Your task to perform on an android device: check battery use Image 0: 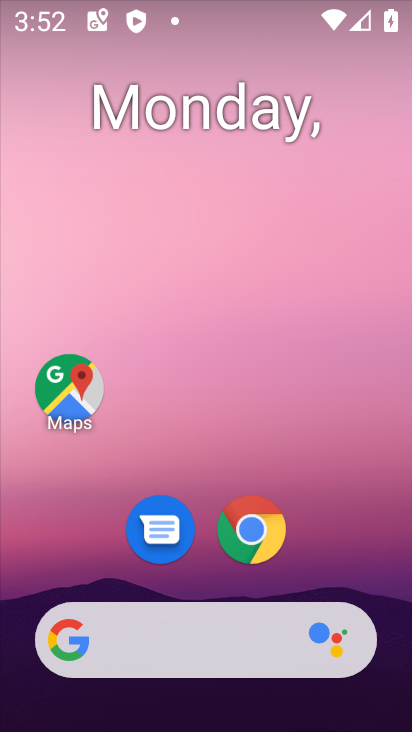
Step 0: drag from (208, 546) to (225, 0)
Your task to perform on an android device: check battery use Image 1: 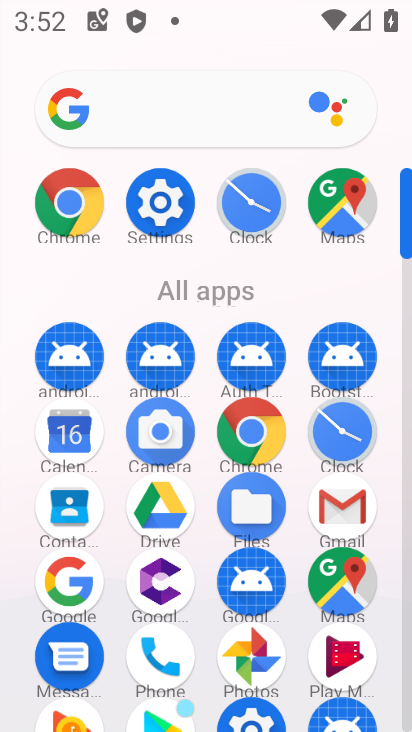
Step 1: click (166, 210)
Your task to perform on an android device: check battery use Image 2: 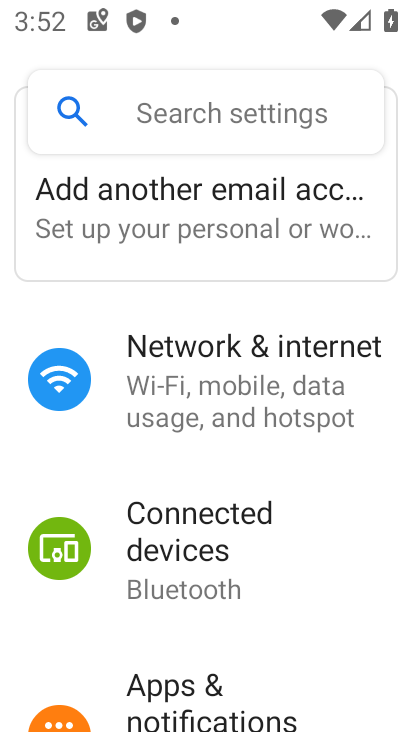
Step 2: drag from (187, 590) to (250, 346)
Your task to perform on an android device: check battery use Image 3: 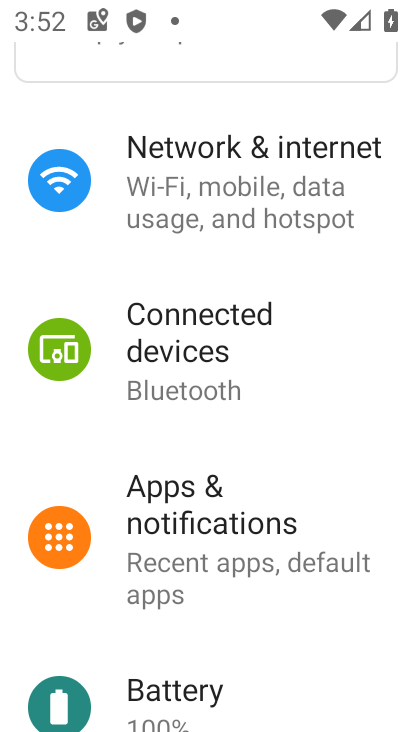
Step 3: drag from (193, 592) to (240, 379)
Your task to perform on an android device: check battery use Image 4: 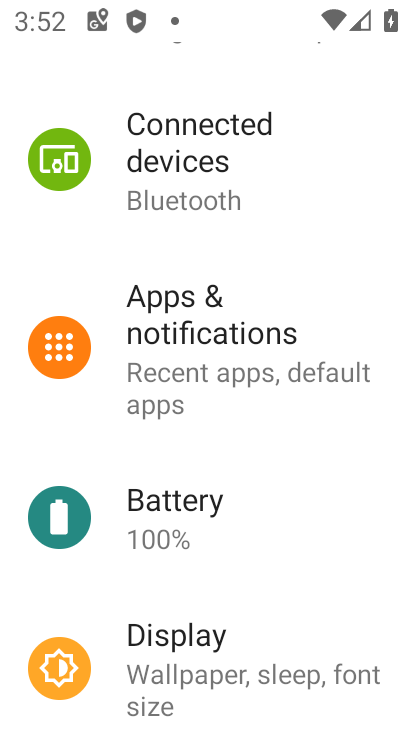
Step 4: click (195, 527)
Your task to perform on an android device: check battery use Image 5: 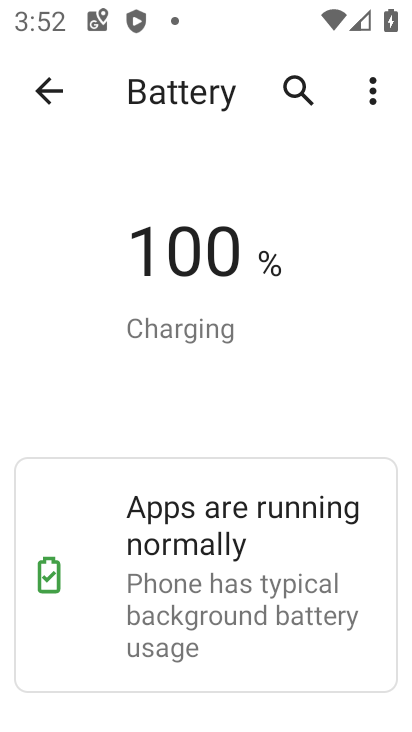
Step 5: drag from (181, 596) to (248, 322)
Your task to perform on an android device: check battery use Image 6: 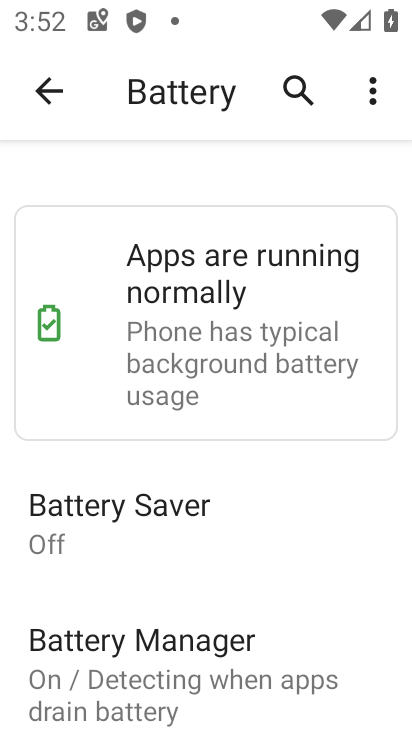
Step 6: drag from (209, 534) to (287, 236)
Your task to perform on an android device: check battery use Image 7: 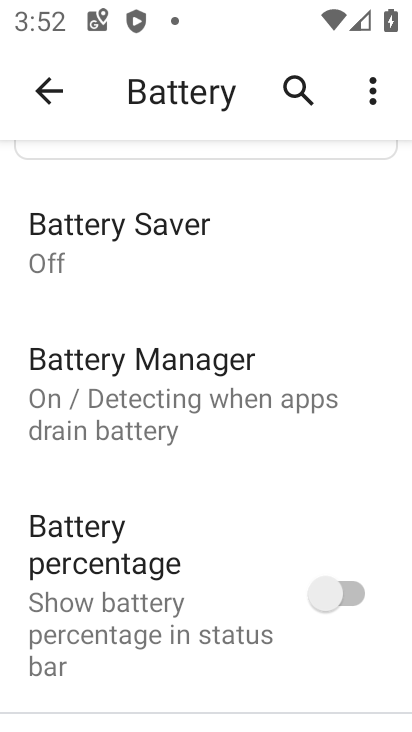
Step 7: click (362, 90)
Your task to perform on an android device: check battery use Image 8: 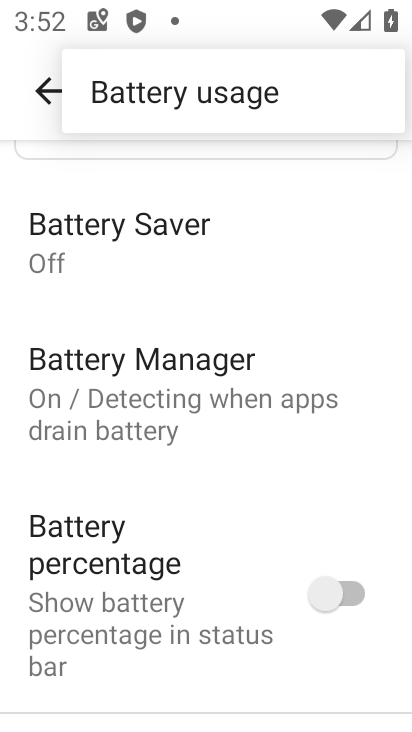
Step 8: click (181, 105)
Your task to perform on an android device: check battery use Image 9: 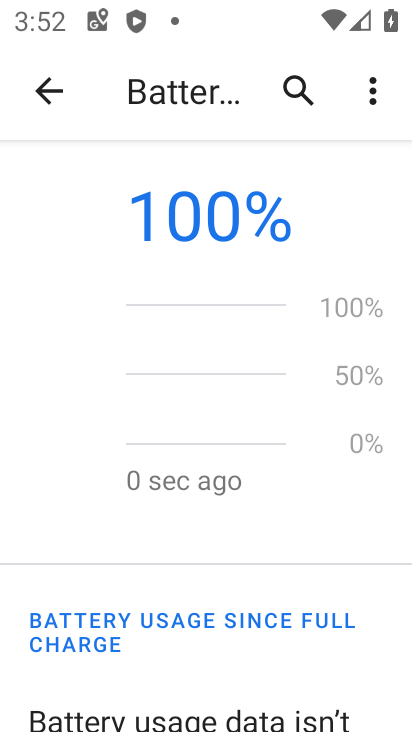
Step 9: task complete